Your task to perform on an android device: turn off smart reply in the gmail app Image 0: 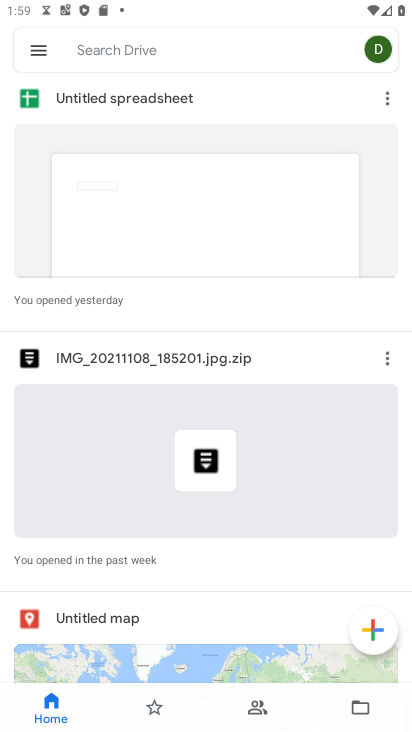
Step 0: press home button
Your task to perform on an android device: turn off smart reply in the gmail app Image 1: 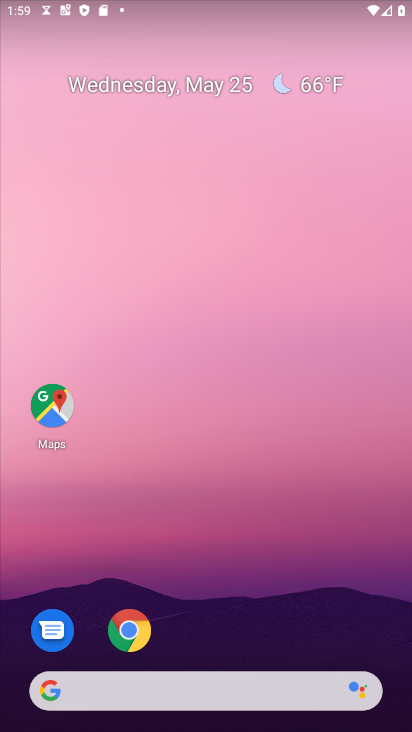
Step 1: drag from (223, 642) to (221, 46)
Your task to perform on an android device: turn off smart reply in the gmail app Image 2: 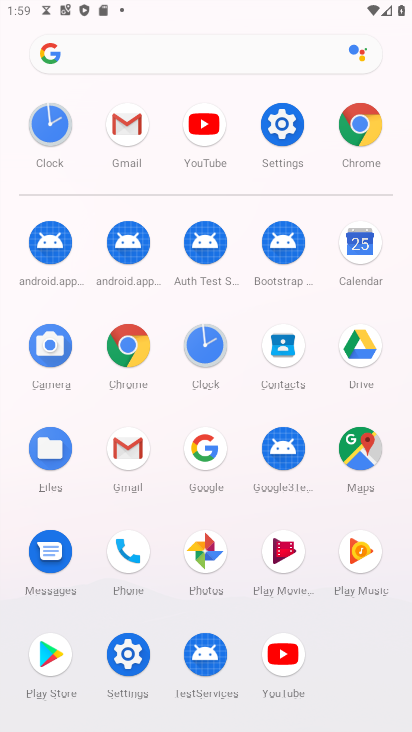
Step 2: click (123, 441)
Your task to perform on an android device: turn off smart reply in the gmail app Image 3: 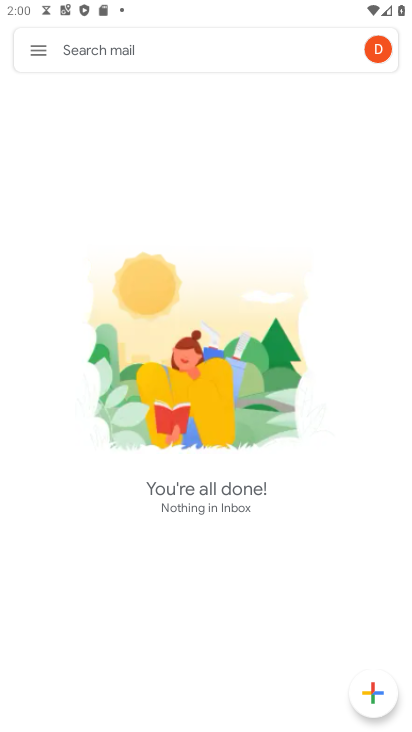
Step 3: click (33, 45)
Your task to perform on an android device: turn off smart reply in the gmail app Image 4: 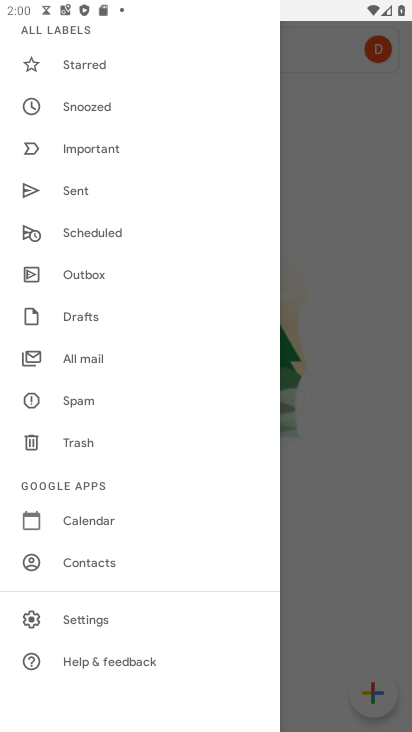
Step 4: click (112, 611)
Your task to perform on an android device: turn off smart reply in the gmail app Image 5: 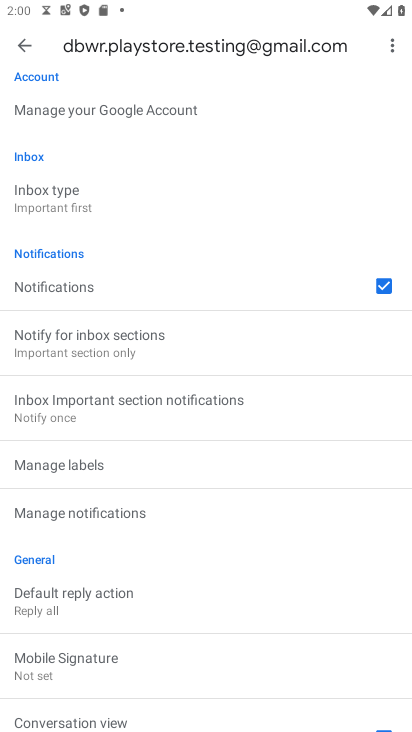
Step 5: drag from (159, 699) to (178, 168)
Your task to perform on an android device: turn off smart reply in the gmail app Image 6: 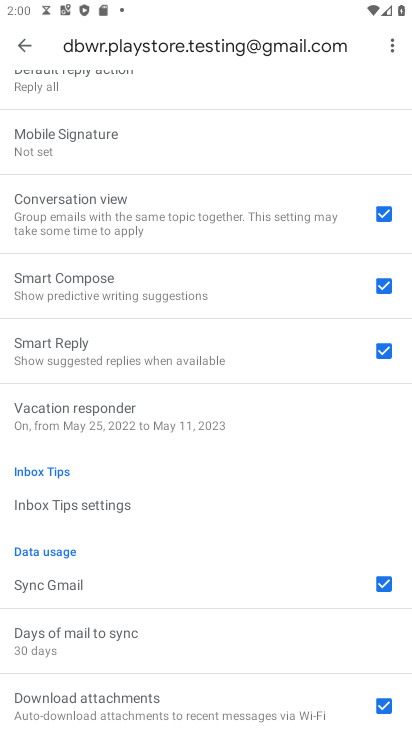
Step 6: click (379, 345)
Your task to perform on an android device: turn off smart reply in the gmail app Image 7: 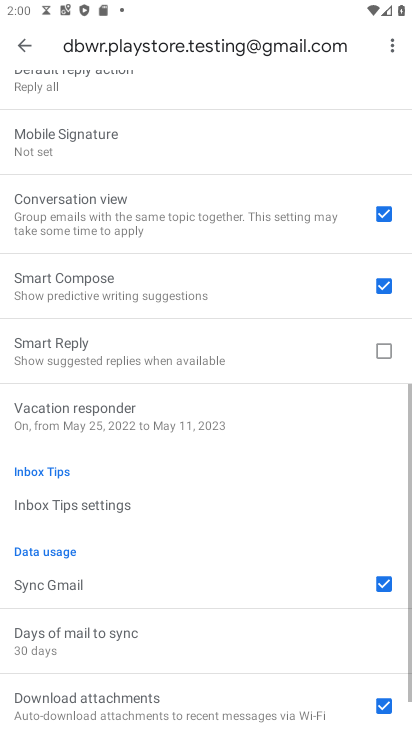
Step 7: task complete